Your task to perform on an android device: set the timer Image 0: 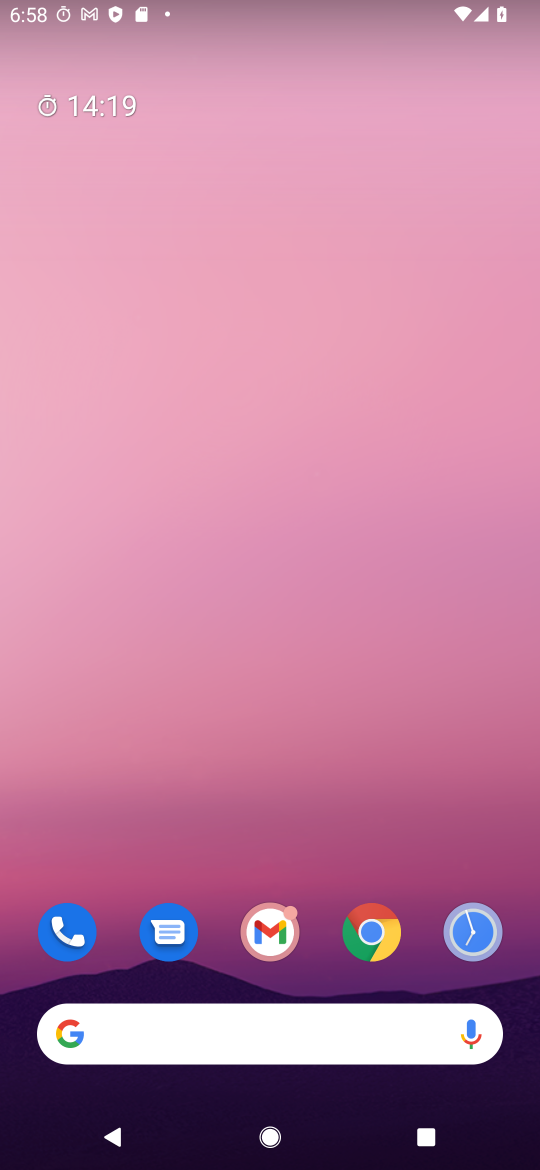
Step 0: drag from (280, 889) to (283, 146)
Your task to perform on an android device: set the timer Image 1: 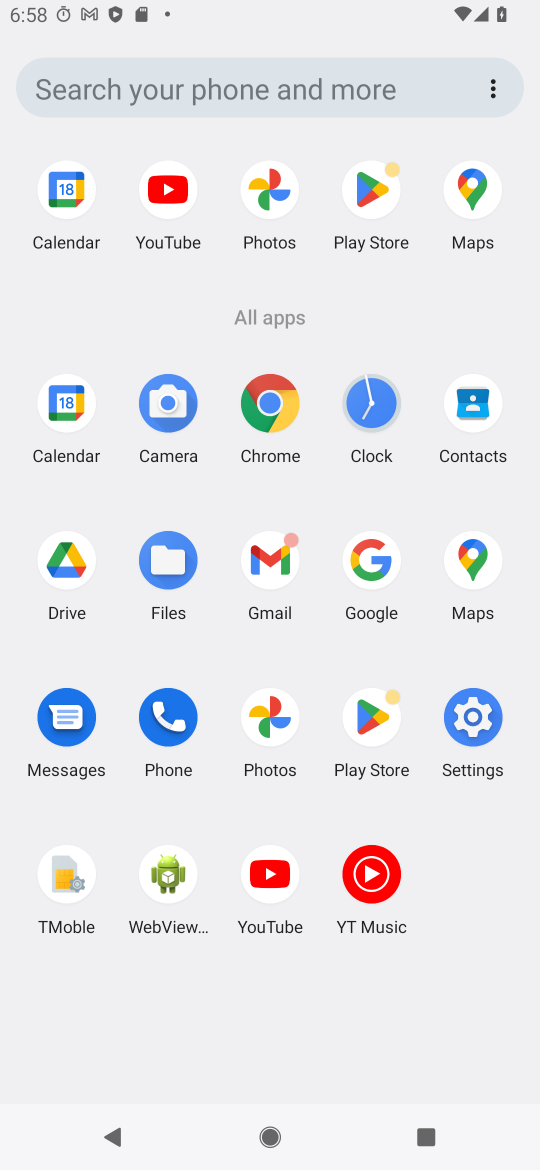
Step 1: click (360, 403)
Your task to perform on an android device: set the timer Image 2: 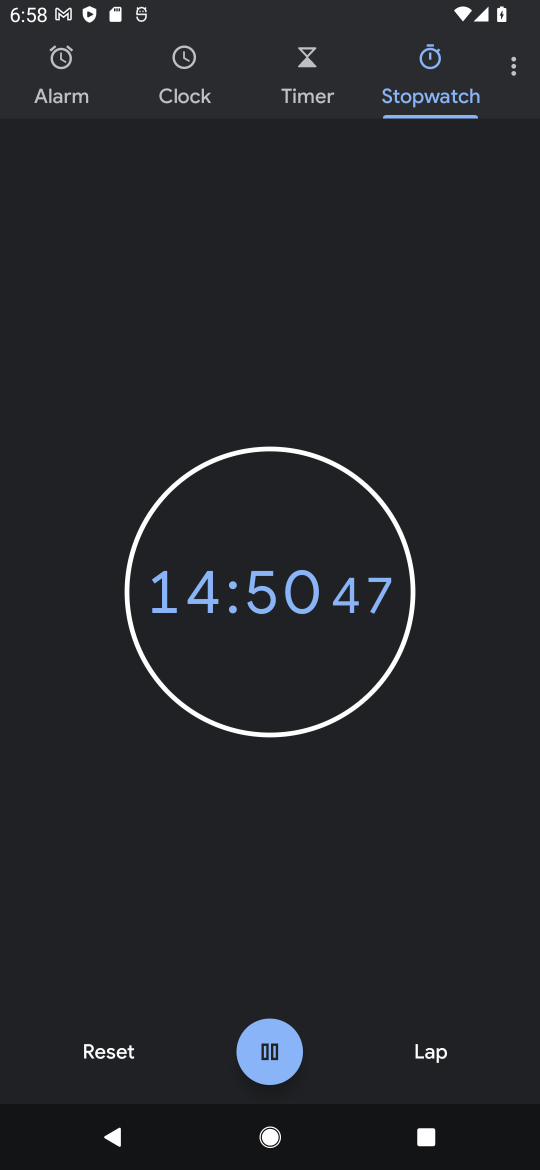
Step 2: click (314, 70)
Your task to perform on an android device: set the timer Image 3: 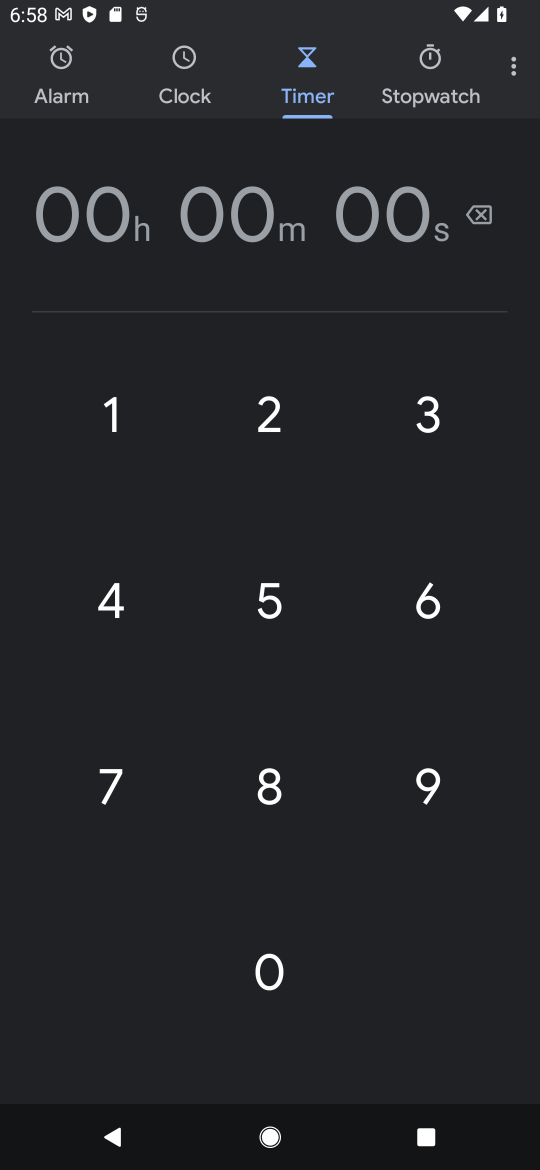
Step 3: click (266, 590)
Your task to perform on an android device: set the timer Image 4: 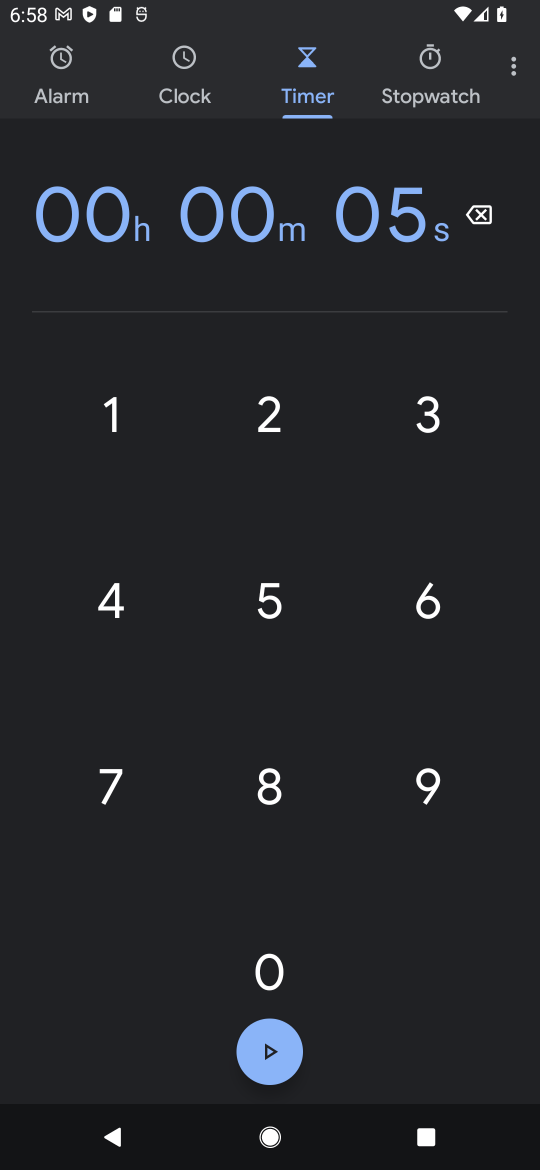
Step 4: click (257, 785)
Your task to perform on an android device: set the timer Image 5: 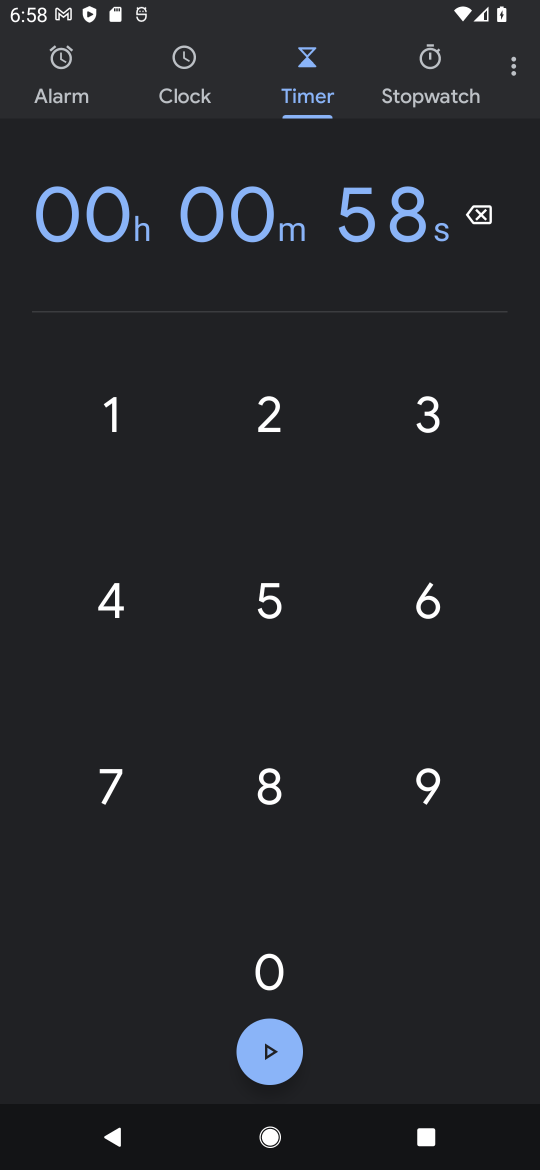
Step 5: click (256, 585)
Your task to perform on an android device: set the timer Image 6: 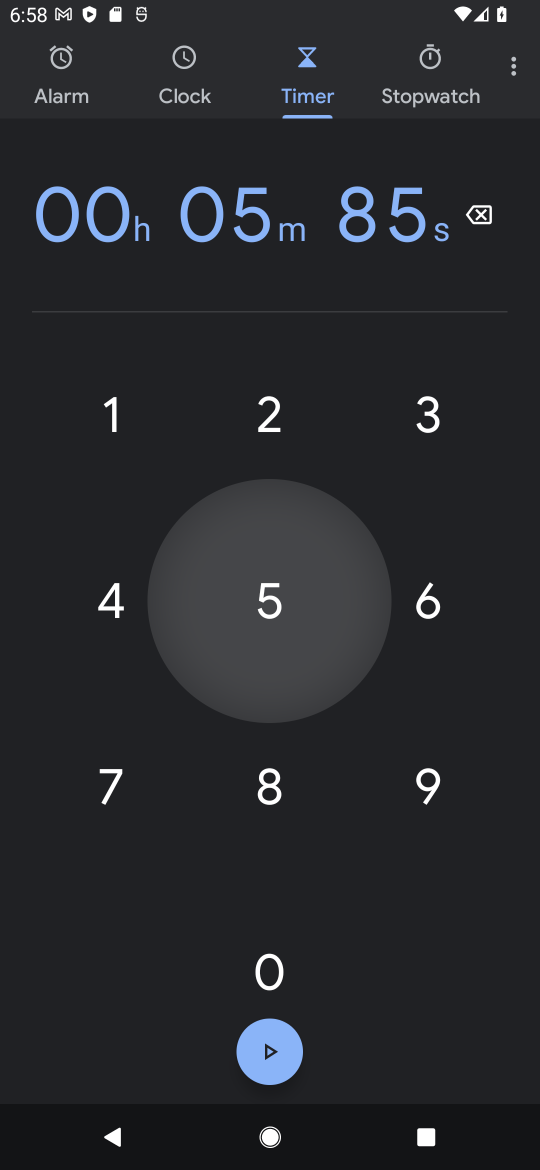
Step 6: click (270, 420)
Your task to perform on an android device: set the timer Image 7: 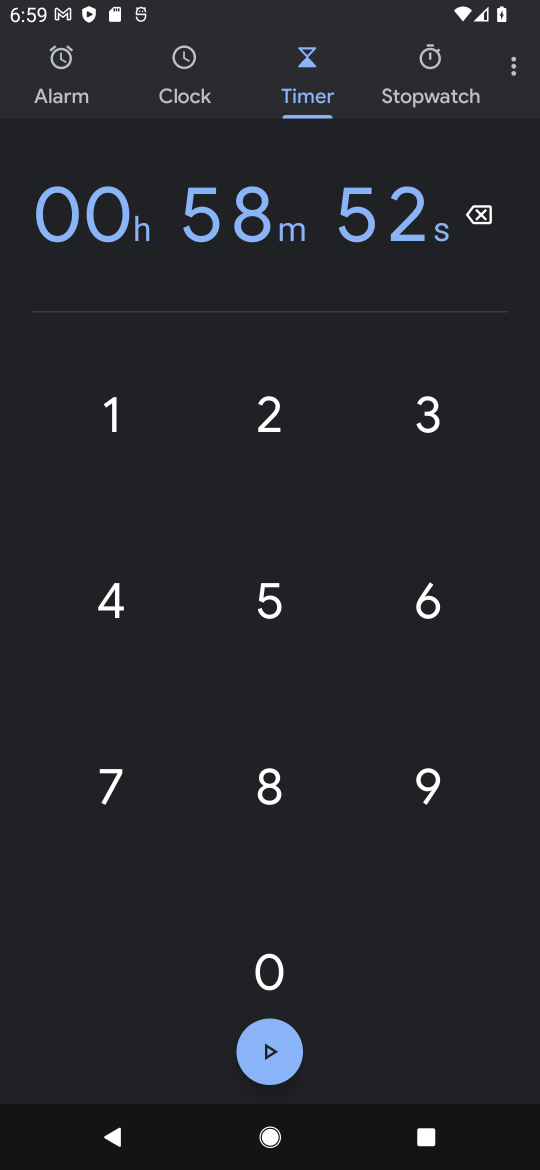
Step 7: click (421, 574)
Your task to perform on an android device: set the timer Image 8: 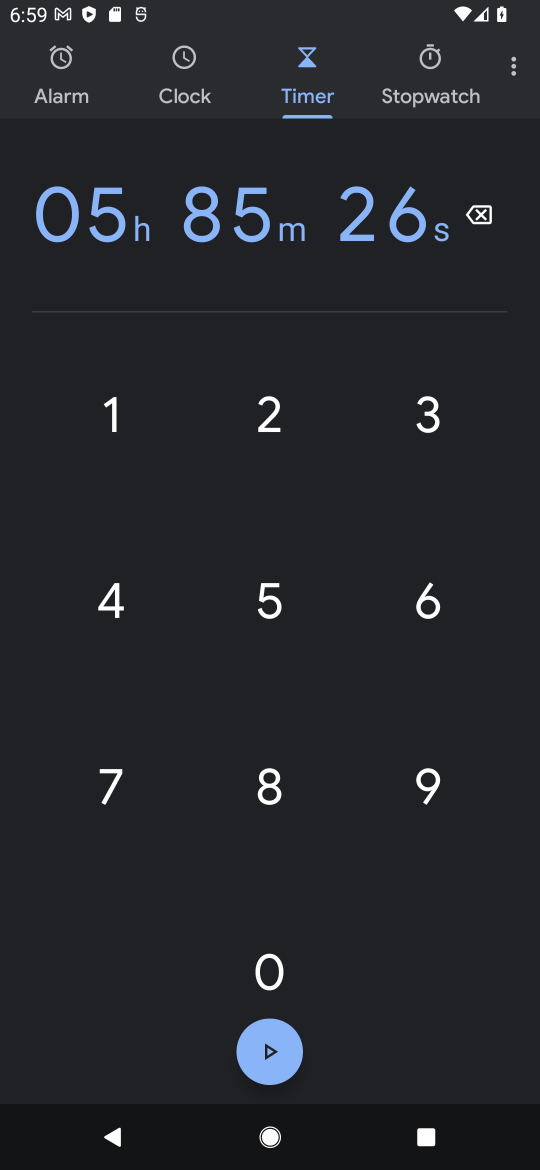
Step 8: click (276, 1045)
Your task to perform on an android device: set the timer Image 9: 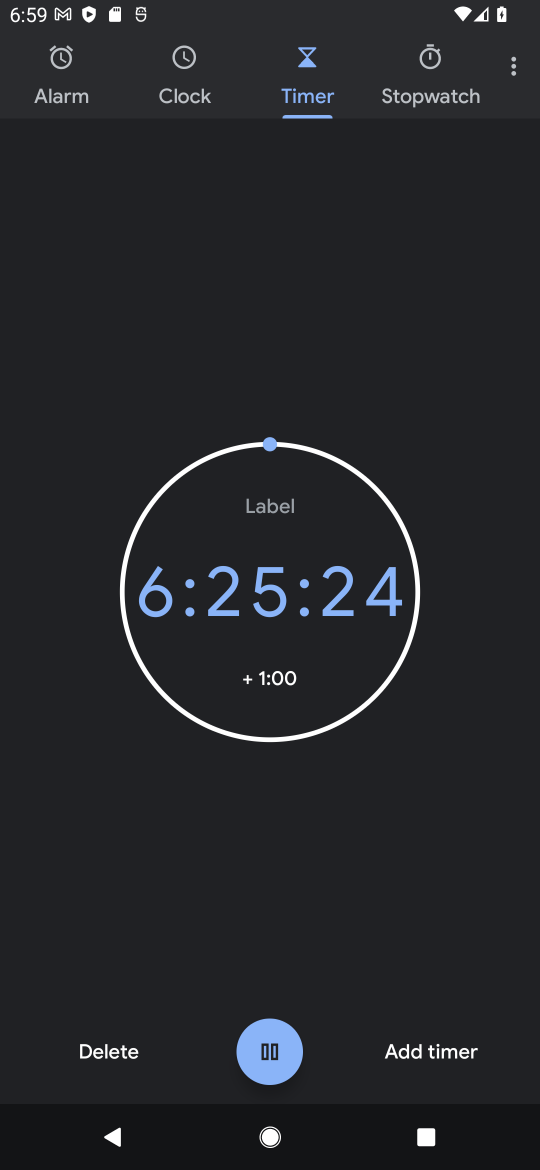
Step 9: task complete